Your task to perform on an android device: Clear the cart on bestbuy. Search for "jbl charge 4" on bestbuy, select the first entry, add it to the cart, then select checkout. Image 0: 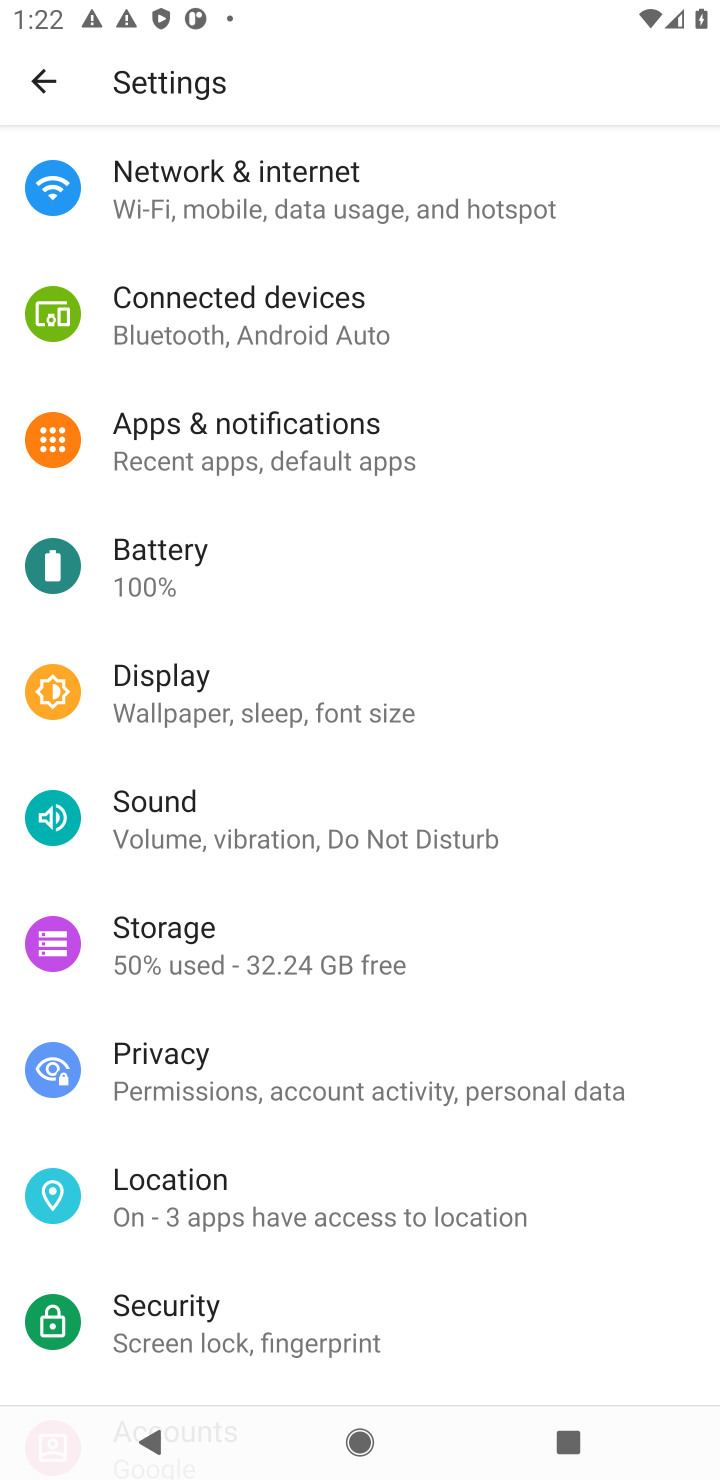
Step 0: press home button
Your task to perform on an android device: Clear the cart on bestbuy. Search for "jbl charge 4" on bestbuy, select the first entry, add it to the cart, then select checkout. Image 1: 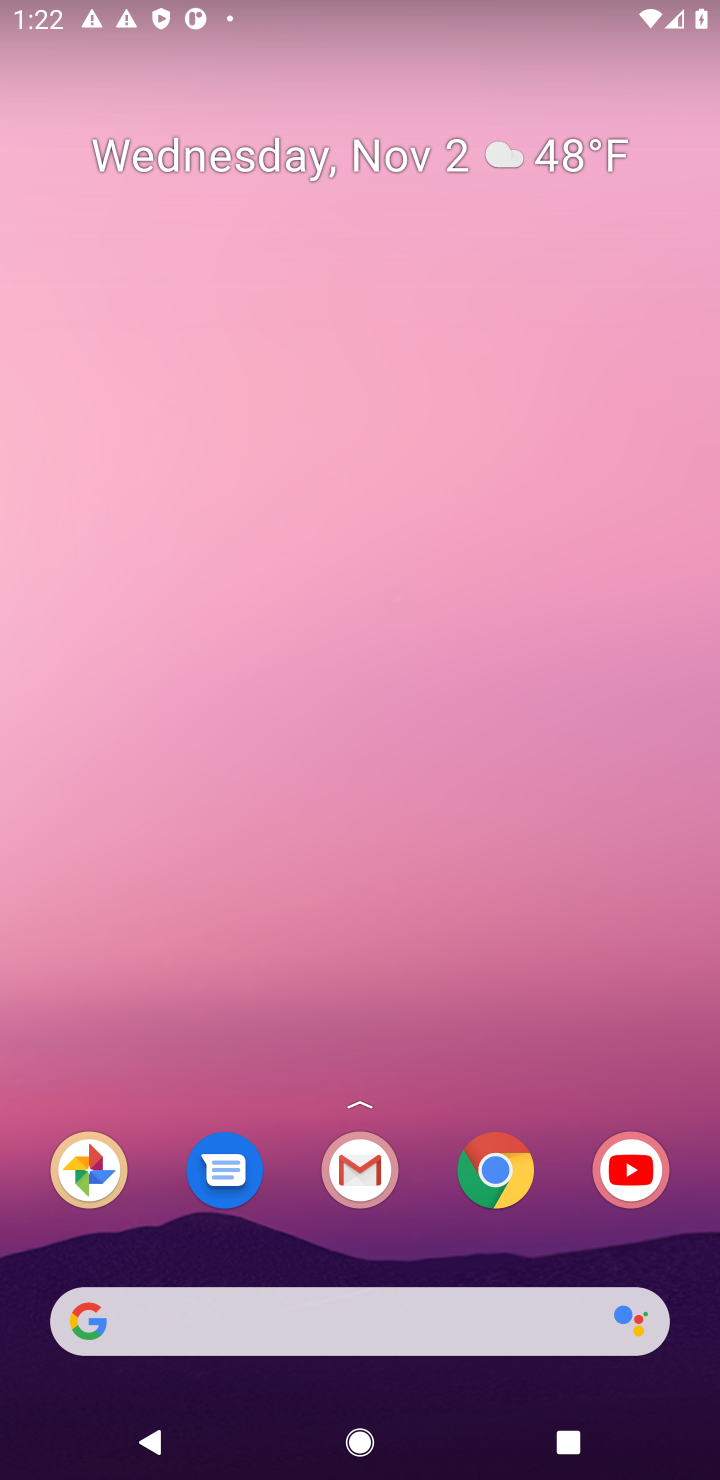
Step 1: click (496, 1168)
Your task to perform on an android device: Clear the cart on bestbuy. Search for "jbl charge 4" on bestbuy, select the first entry, add it to the cart, then select checkout. Image 2: 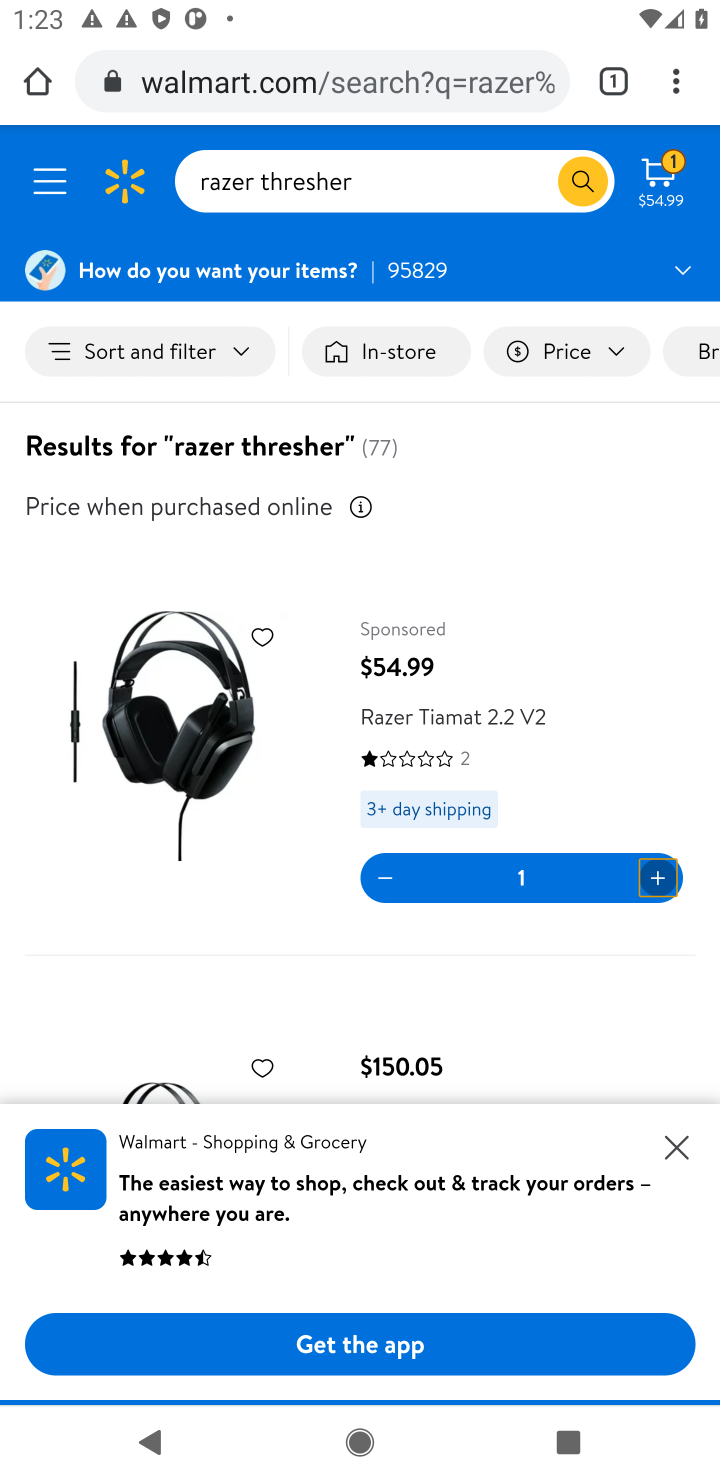
Step 2: click (375, 91)
Your task to perform on an android device: Clear the cart on bestbuy. Search for "jbl charge 4" on bestbuy, select the first entry, add it to the cart, then select checkout. Image 3: 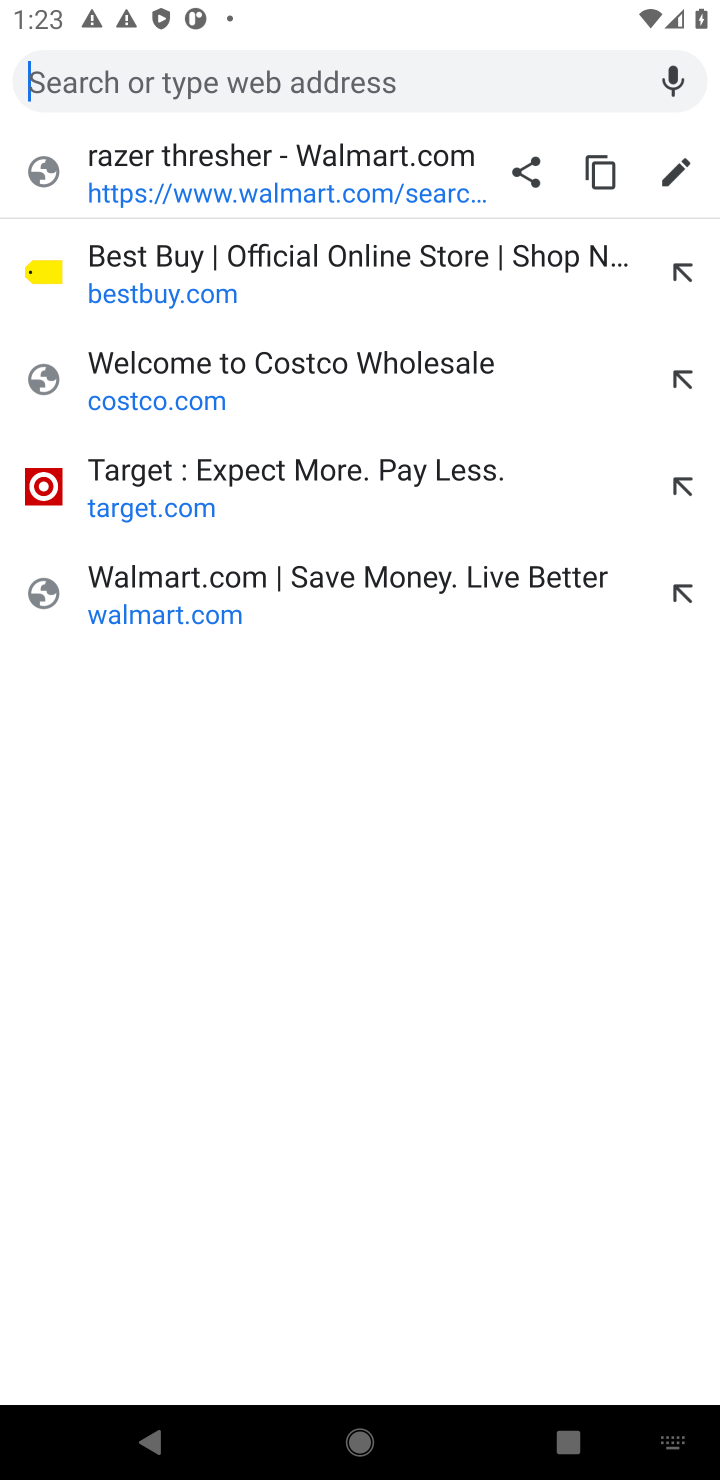
Step 3: type "bestbuy"
Your task to perform on an android device: Clear the cart on bestbuy. Search for "jbl charge 4" on bestbuy, select the first entry, add it to the cart, then select checkout. Image 4: 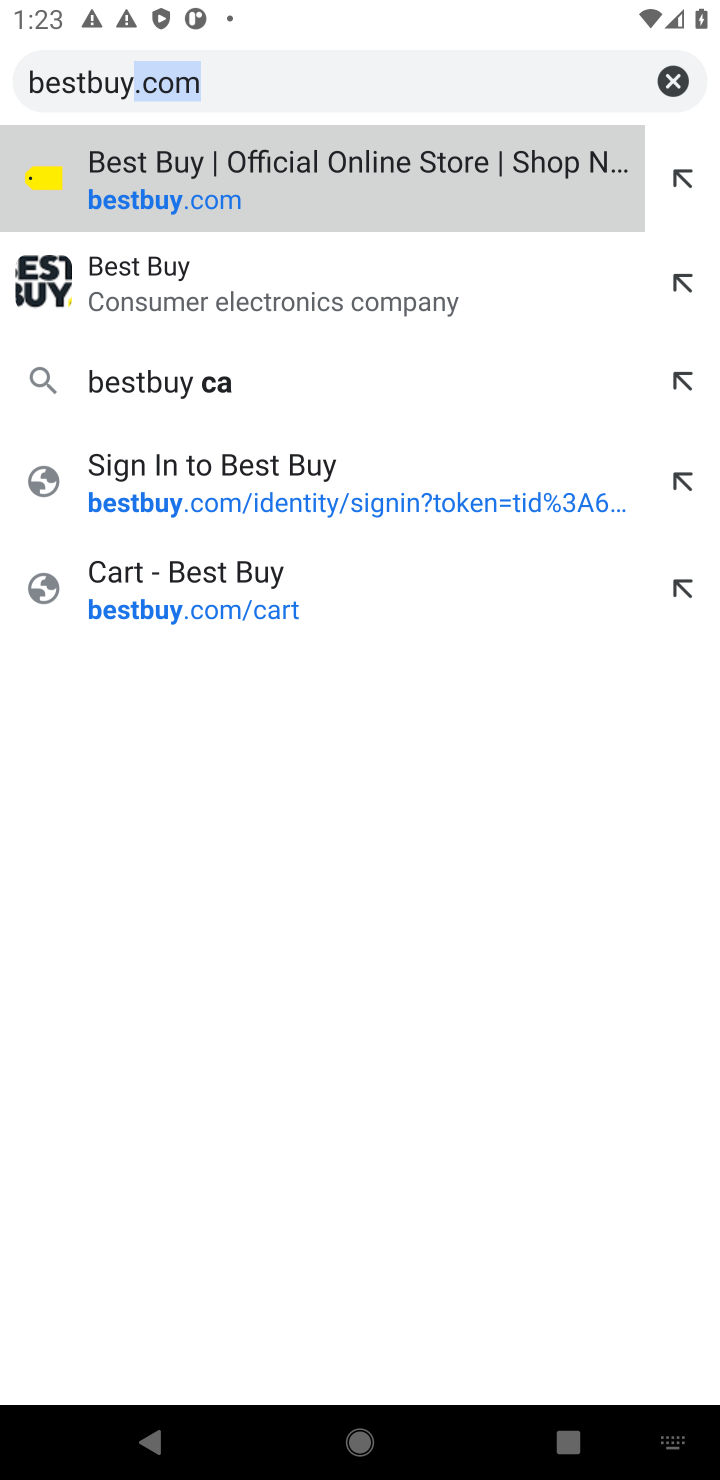
Step 4: click (252, 157)
Your task to perform on an android device: Clear the cart on bestbuy. Search for "jbl charge 4" on bestbuy, select the first entry, add it to the cart, then select checkout. Image 5: 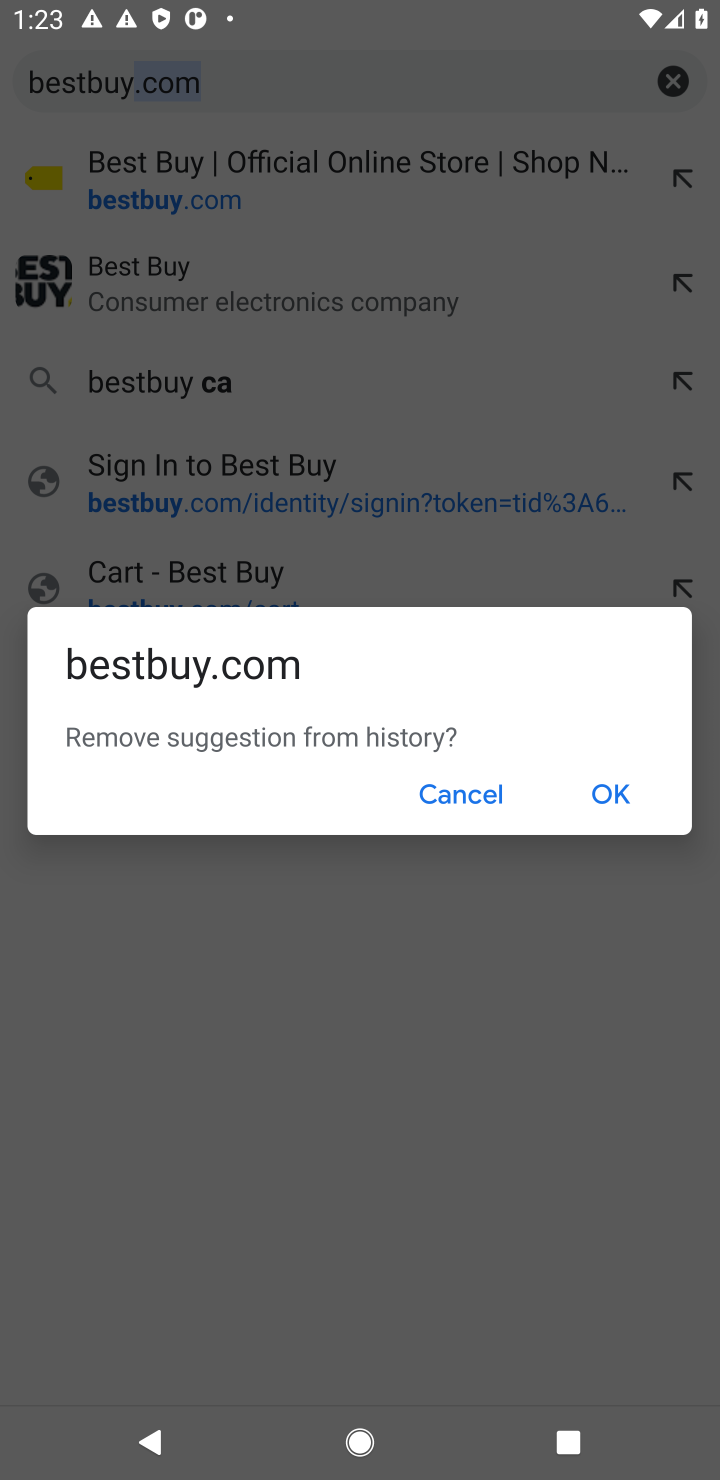
Step 5: click (453, 783)
Your task to perform on an android device: Clear the cart on bestbuy. Search for "jbl charge 4" on bestbuy, select the first entry, add it to the cart, then select checkout. Image 6: 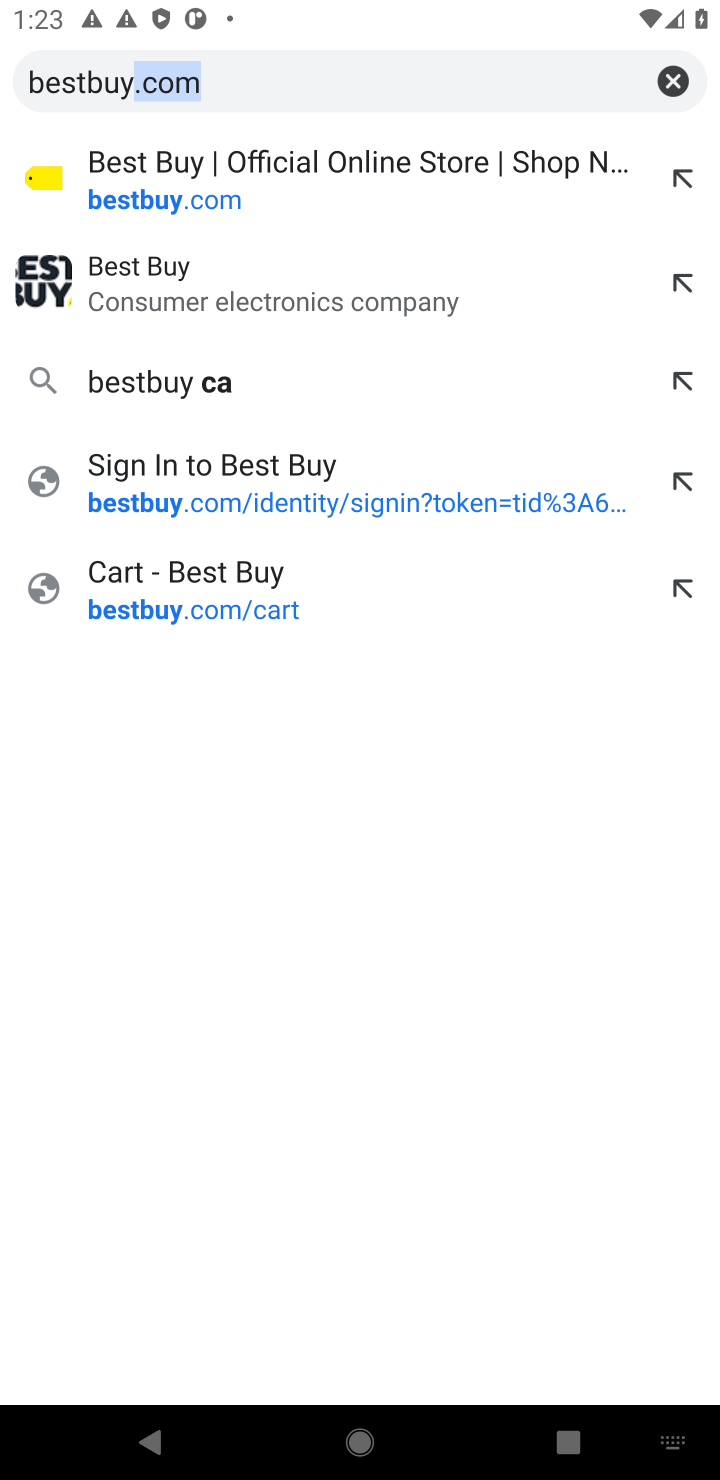
Step 6: click (97, 163)
Your task to perform on an android device: Clear the cart on bestbuy. Search for "jbl charge 4" on bestbuy, select the first entry, add it to the cart, then select checkout. Image 7: 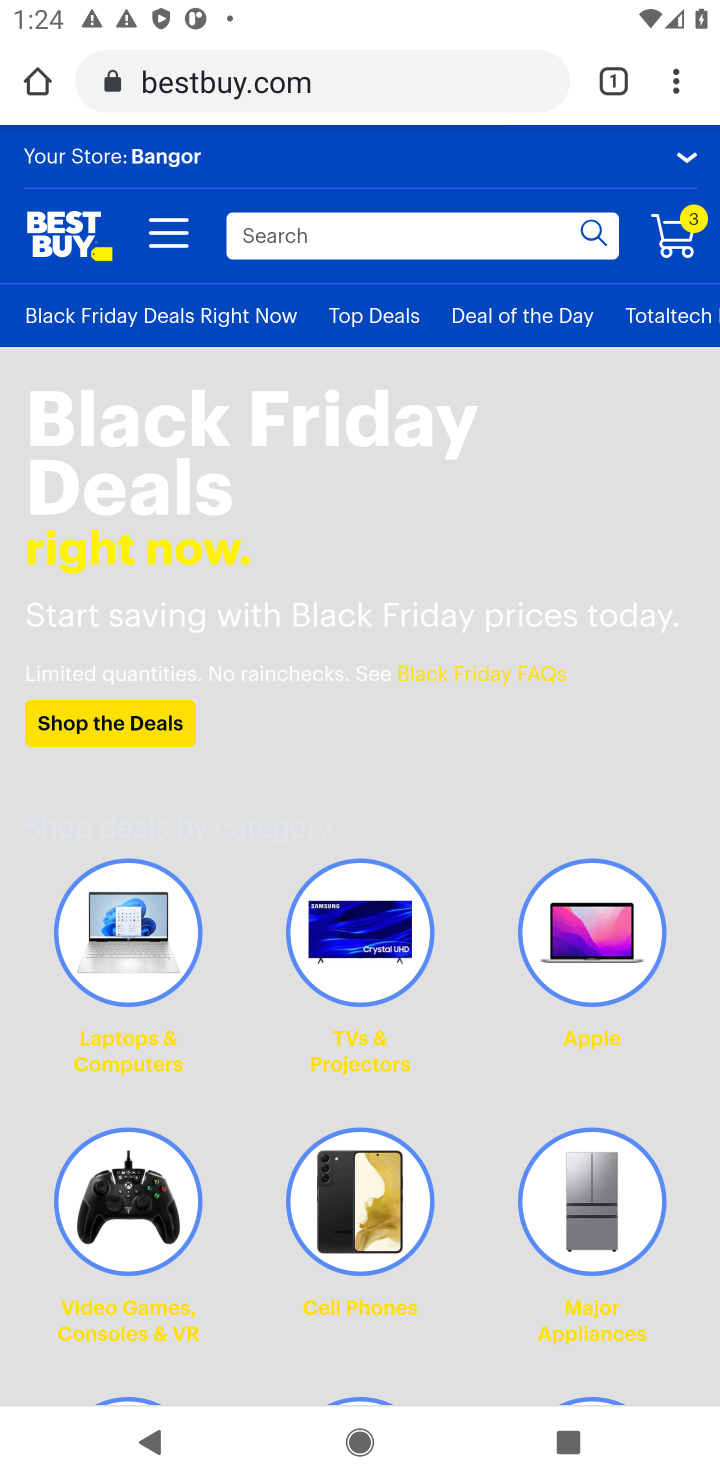
Step 7: click (381, 231)
Your task to perform on an android device: Clear the cart on bestbuy. Search for "jbl charge 4" on bestbuy, select the first entry, add it to the cart, then select checkout. Image 8: 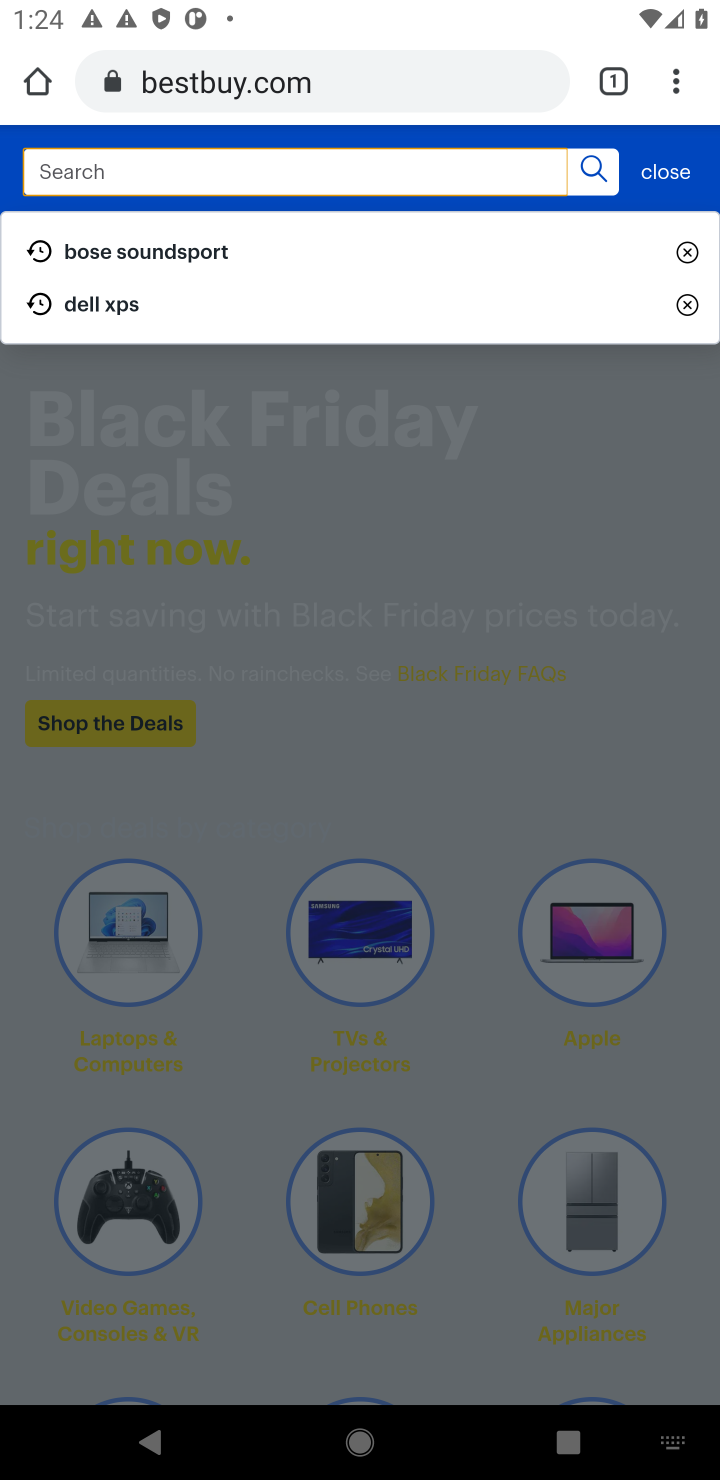
Step 8: type "jbl charge 4"
Your task to perform on an android device: Clear the cart on bestbuy. Search for "jbl charge 4" on bestbuy, select the first entry, add it to the cart, then select checkout. Image 9: 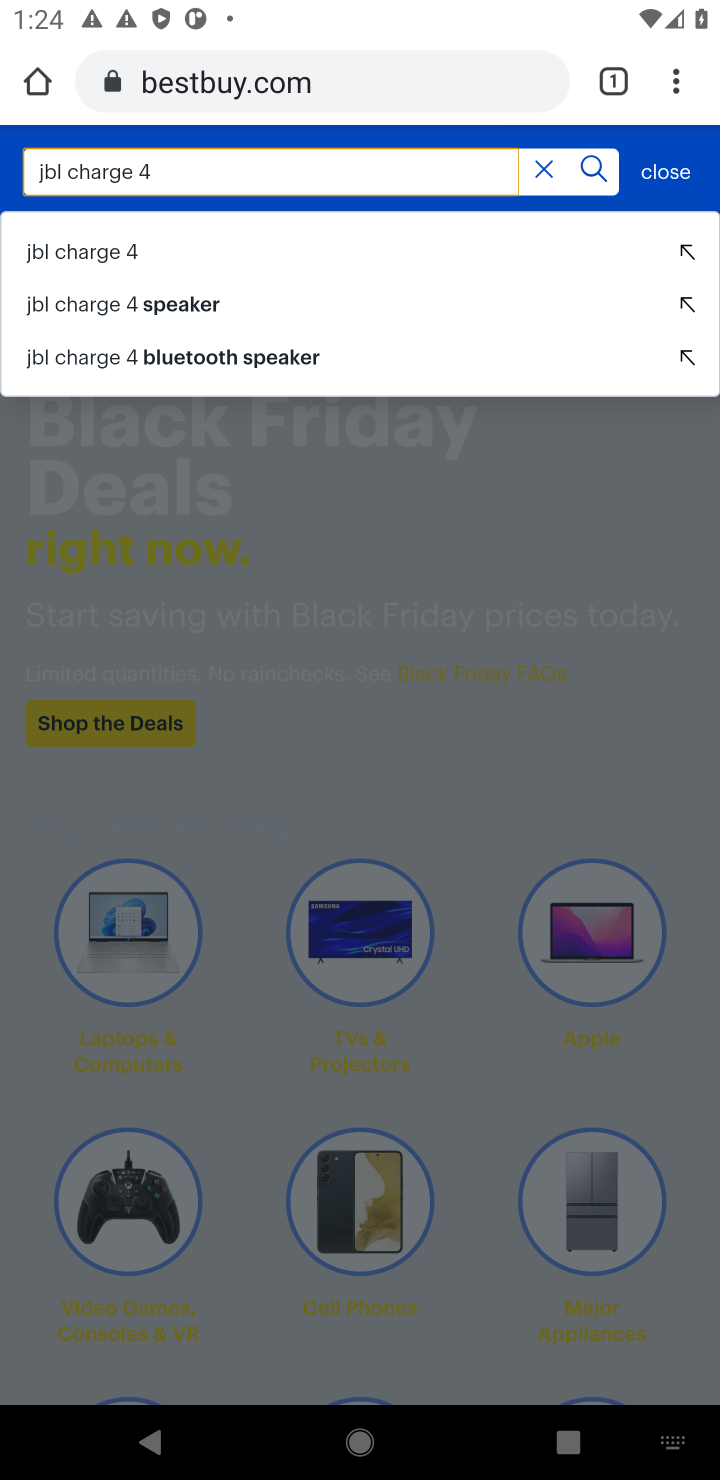
Step 9: click (73, 256)
Your task to perform on an android device: Clear the cart on bestbuy. Search for "jbl charge 4" on bestbuy, select the first entry, add it to the cart, then select checkout. Image 10: 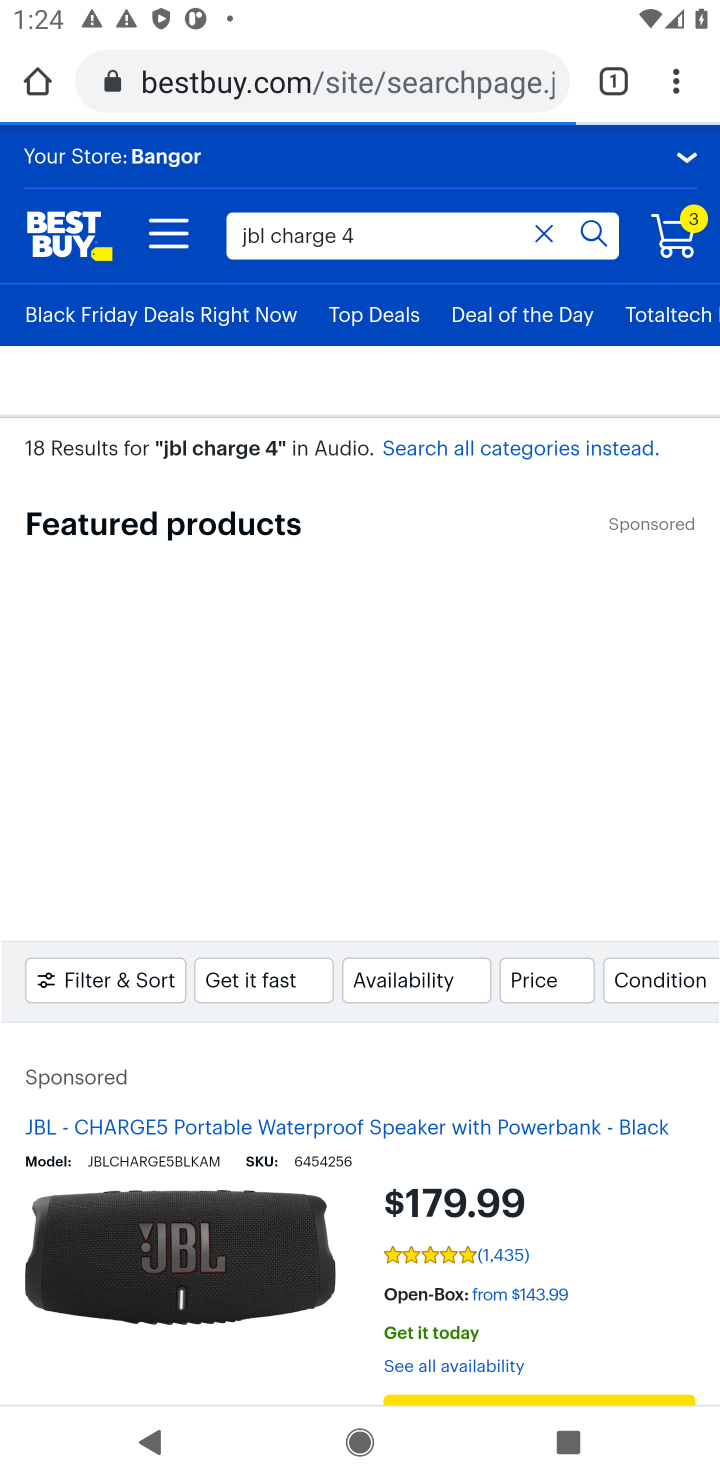
Step 10: click (265, 1250)
Your task to perform on an android device: Clear the cart on bestbuy. Search for "jbl charge 4" on bestbuy, select the first entry, add it to the cart, then select checkout. Image 11: 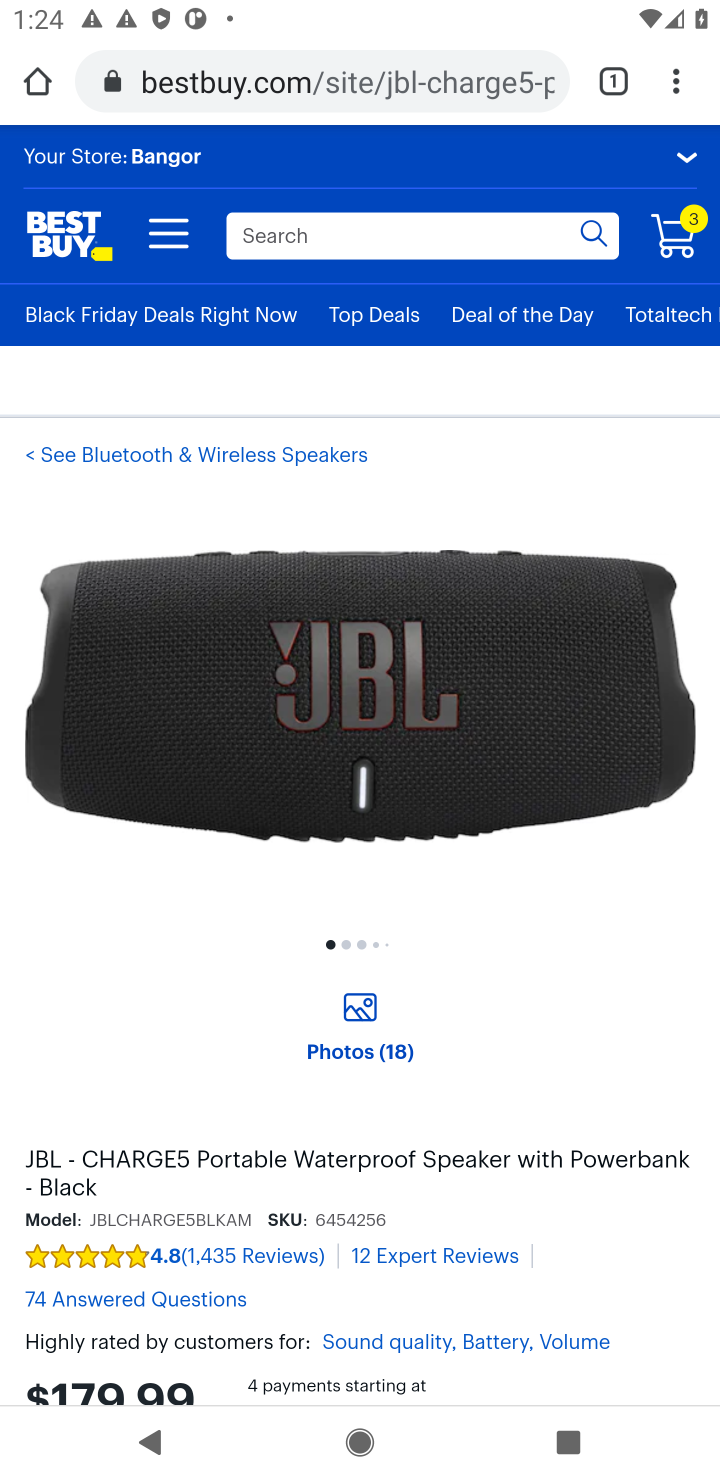
Step 11: drag from (300, 1295) to (354, 691)
Your task to perform on an android device: Clear the cart on bestbuy. Search for "jbl charge 4" on bestbuy, select the first entry, add it to the cart, then select checkout. Image 12: 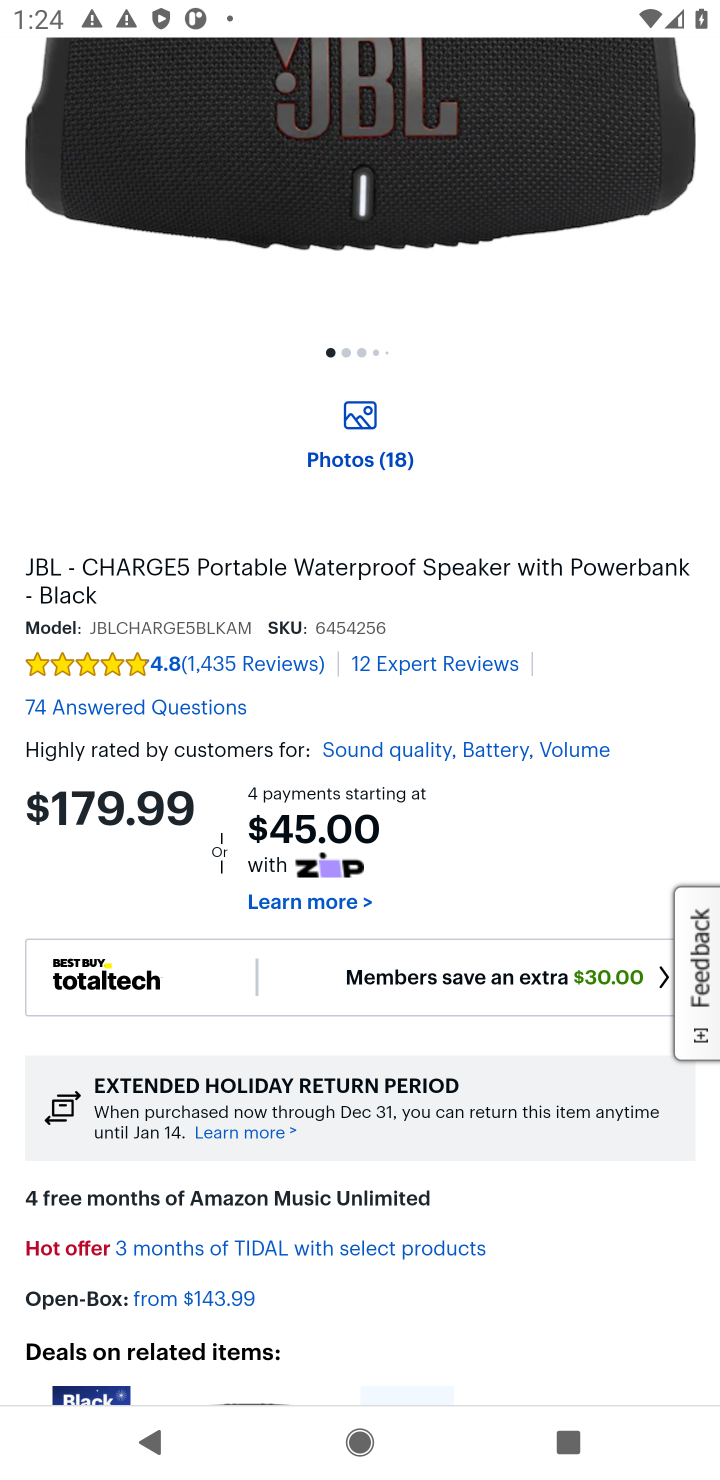
Step 12: drag from (404, 1091) to (401, 584)
Your task to perform on an android device: Clear the cart on bestbuy. Search for "jbl charge 4" on bestbuy, select the first entry, add it to the cart, then select checkout. Image 13: 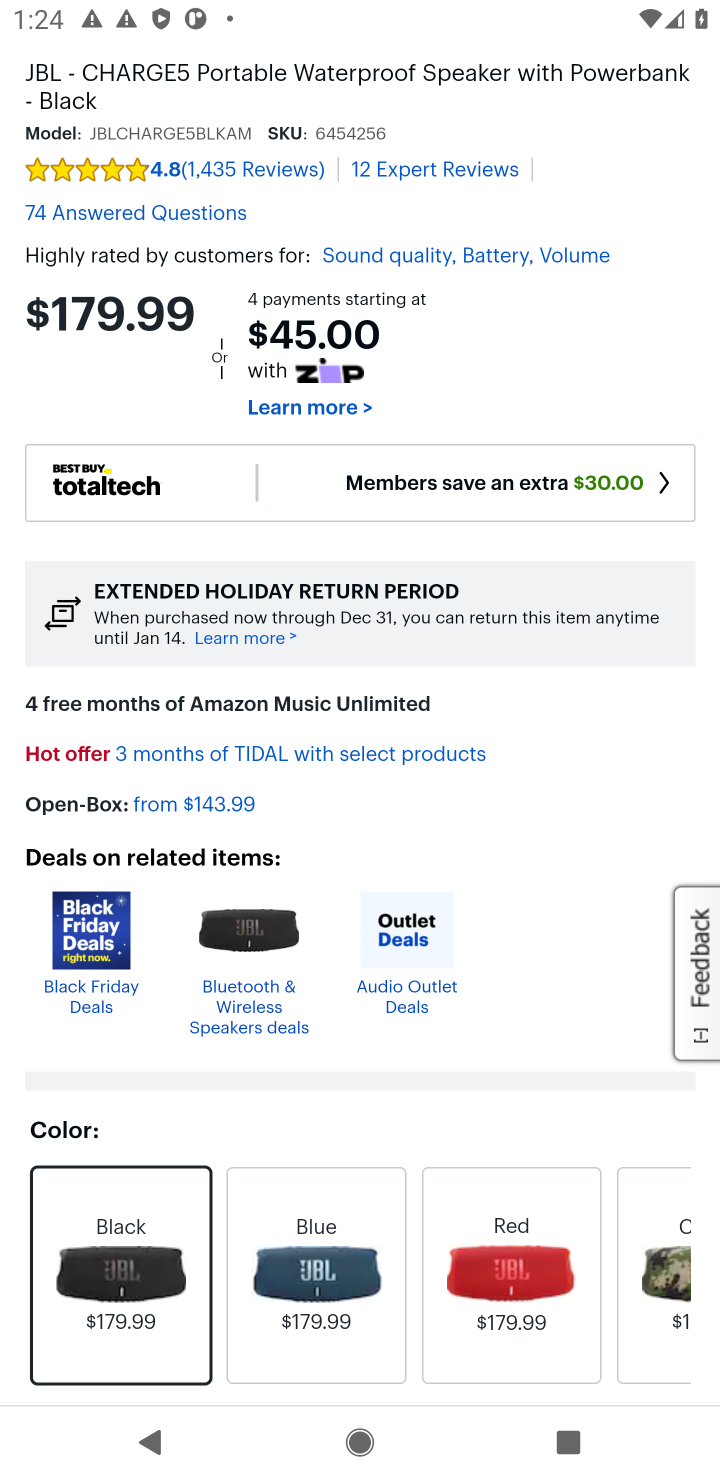
Step 13: drag from (410, 933) to (410, 479)
Your task to perform on an android device: Clear the cart on bestbuy. Search for "jbl charge 4" on bestbuy, select the first entry, add it to the cart, then select checkout. Image 14: 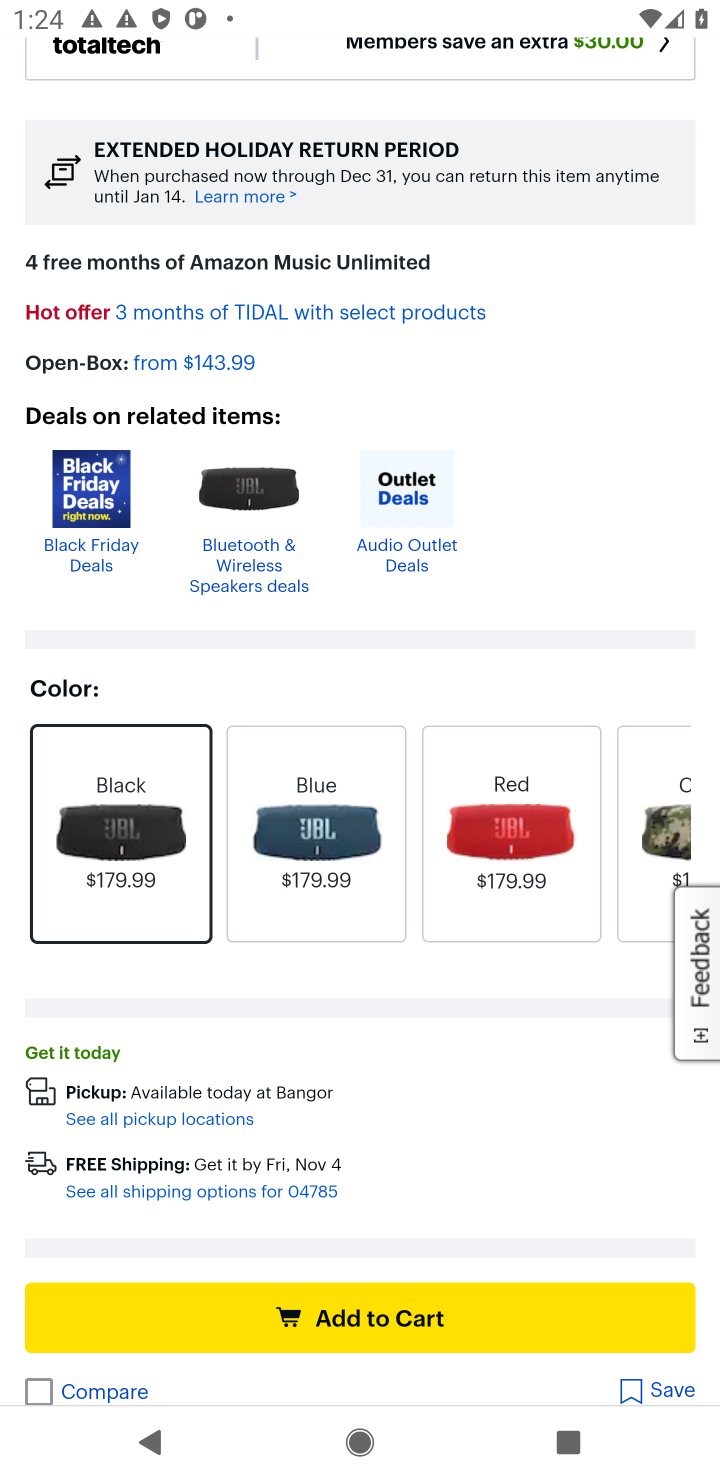
Step 14: drag from (413, 1015) to (452, 578)
Your task to perform on an android device: Clear the cart on bestbuy. Search for "jbl charge 4" on bestbuy, select the first entry, add it to the cart, then select checkout. Image 15: 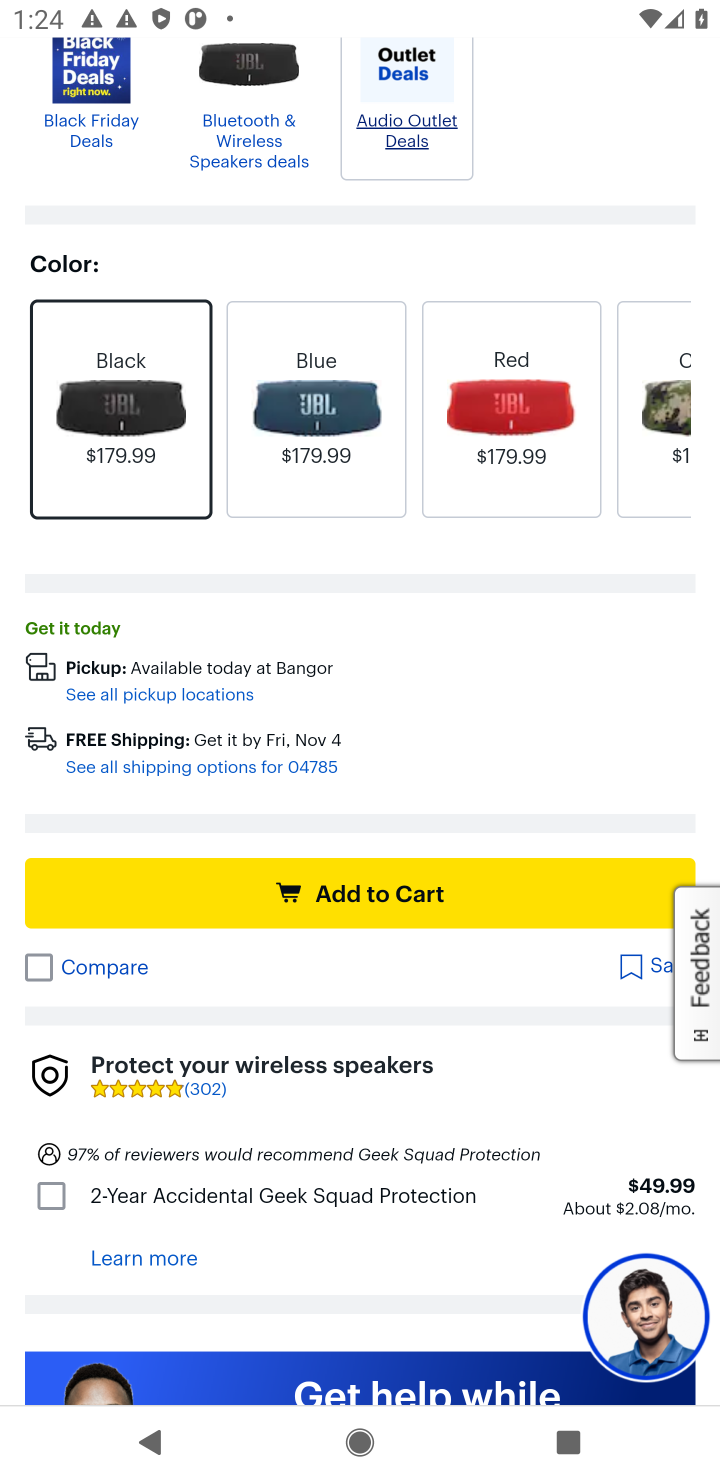
Step 15: click (438, 900)
Your task to perform on an android device: Clear the cart on bestbuy. Search for "jbl charge 4" on bestbuy, select the first entry, add it to the cart, then select checkout. Image 16: 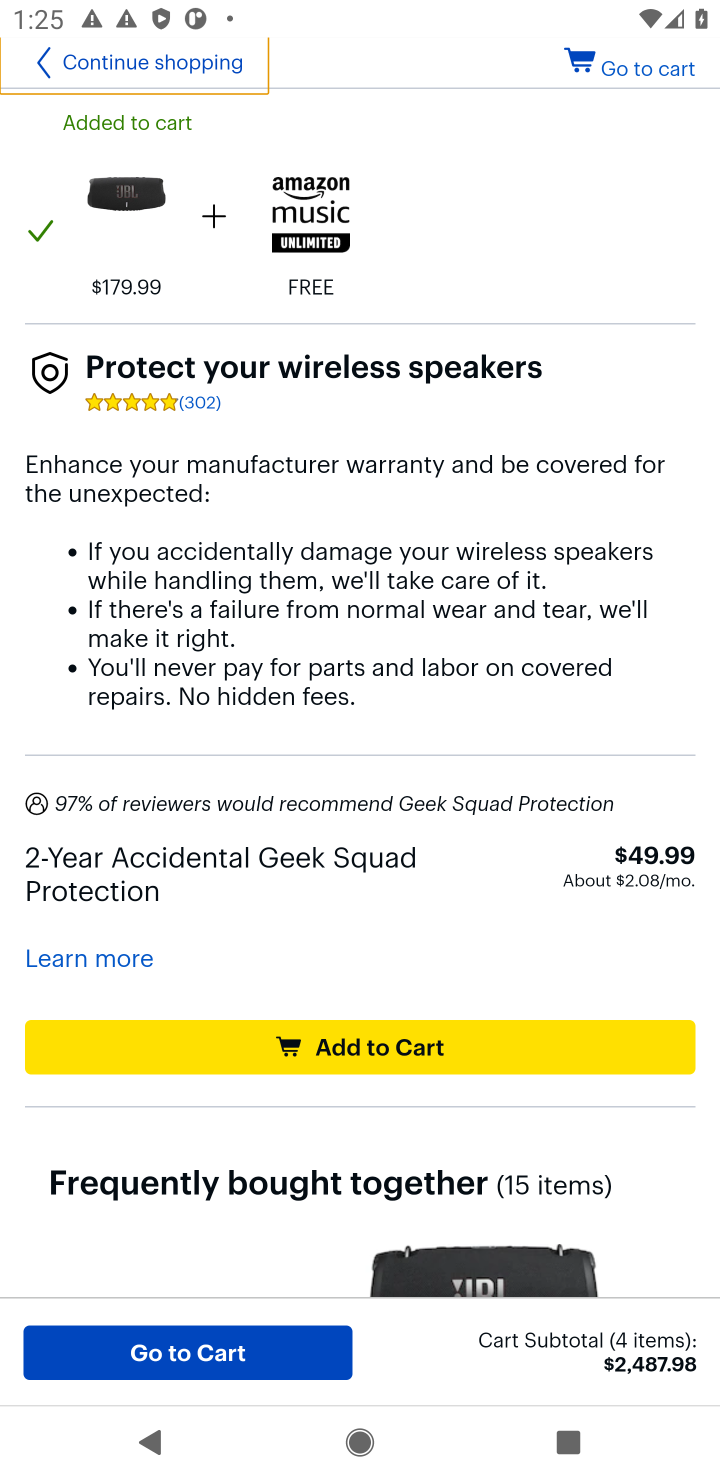
Step 16: click (198, 1347)
Your task to perform on an android device: Clear the cart on bestbuy. Search for "jbl charge 4" on bestbuy, select the first entry, add it to the cart, then select checkout. Image 17: 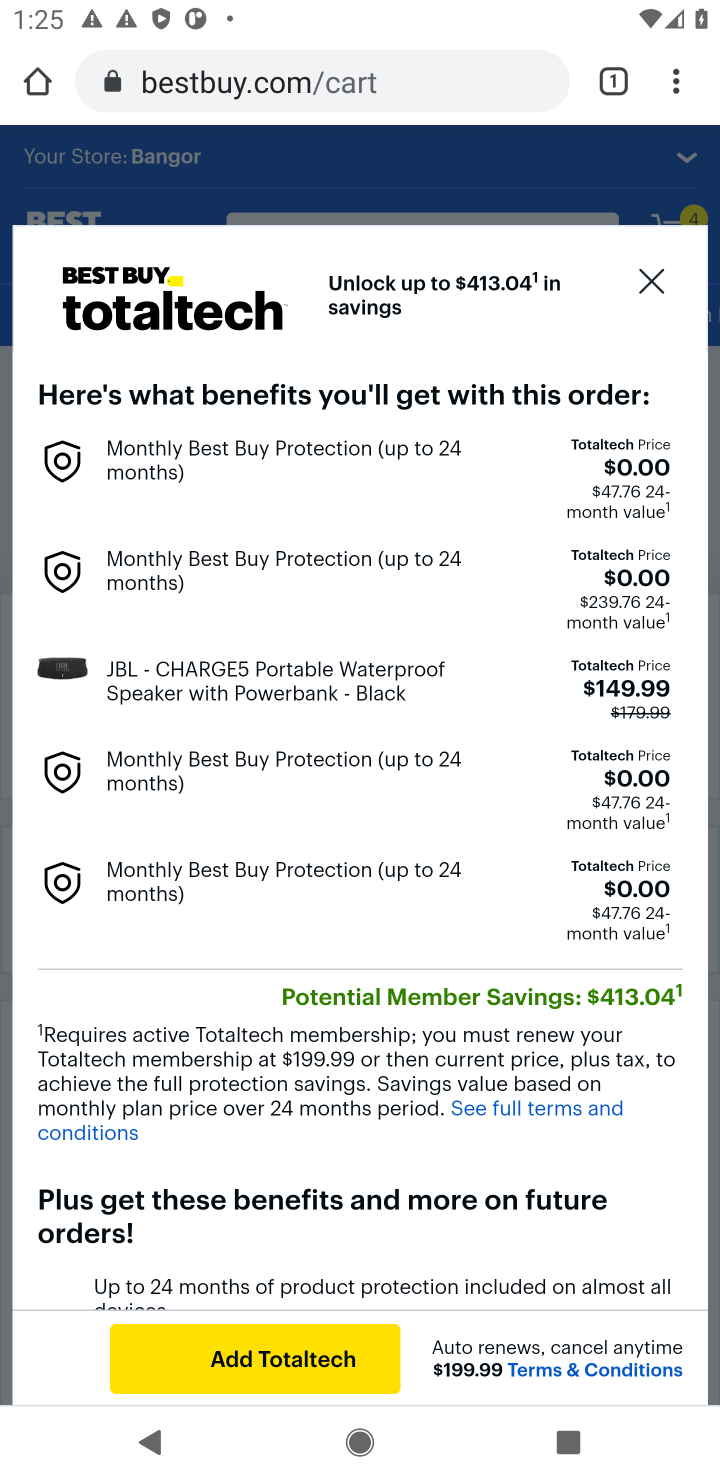
Step 17: click (550, 712)
Your task to perform on an android device: Clear the cart on bestbuy. Search for "jbl charge 4" on bestbuy, select the first entry, add it to the cart, then select checkout. Image 18: 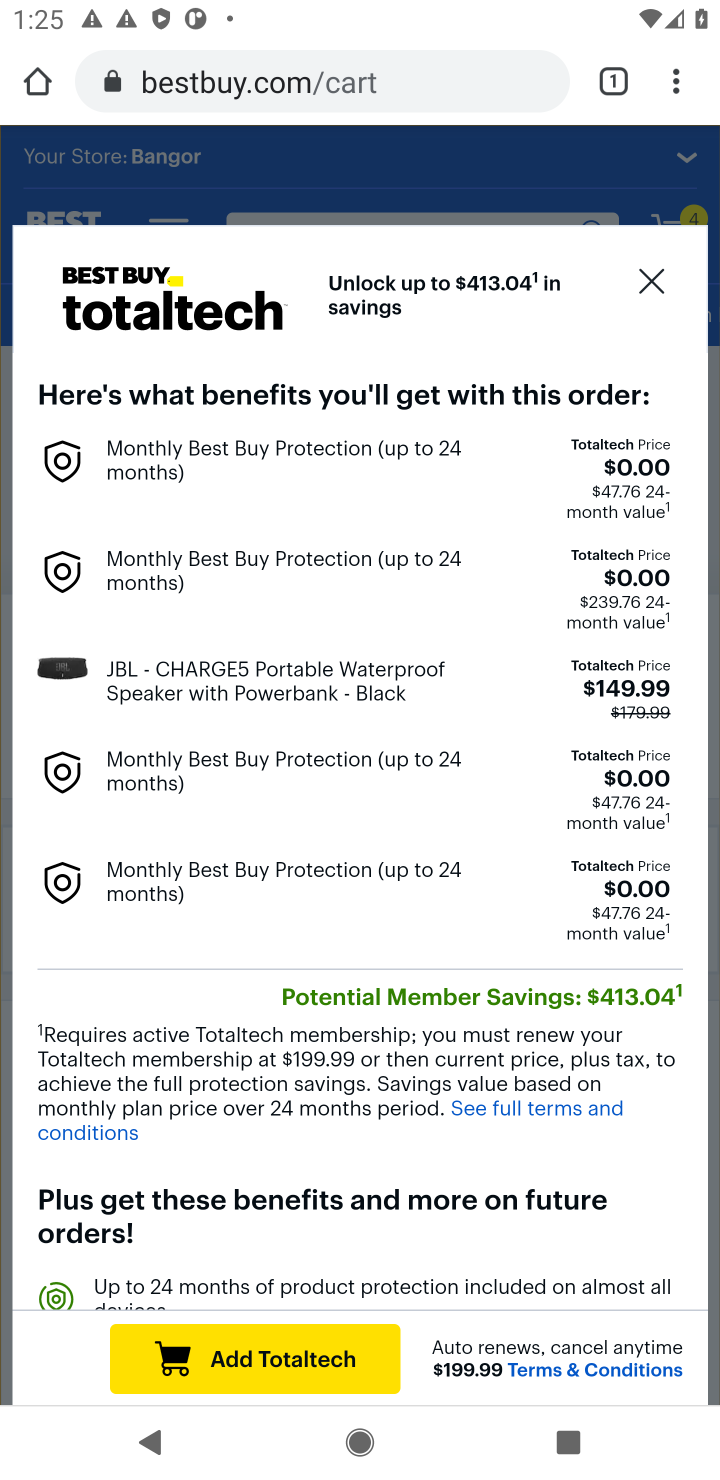
Step 18: click (643, 287)
Your task to perform on an android device: Clear the cart on bestbuy. Search for "jbl charge 4" on bestbuy, select the first entry, add it to the cart, then select checkout. Image 19: 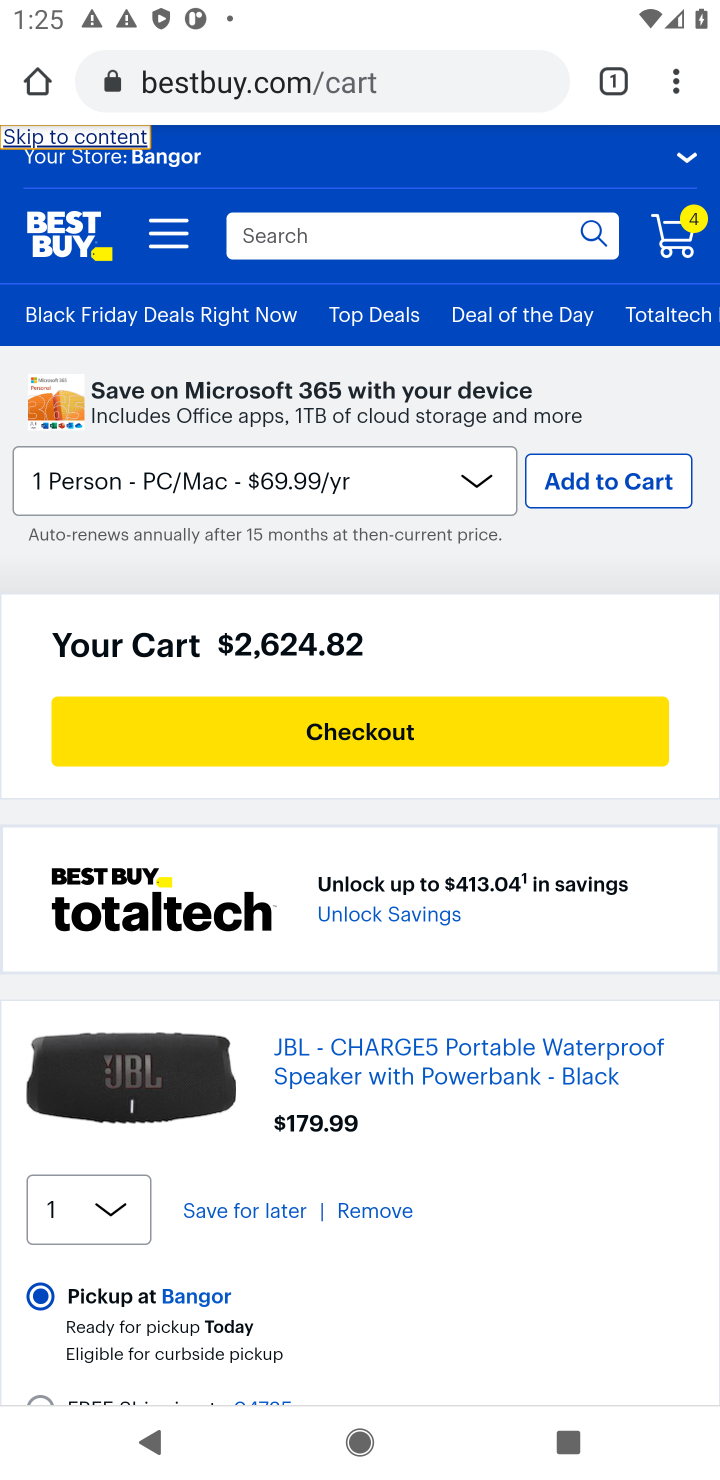
Step 19: click (287, 755)
Your task to perform on an android device: Clear the cart on bestbuy. Search for "jbl charge 4" on bestbuy, select the first entry, add it to the cart, then select checkout. Image 20: 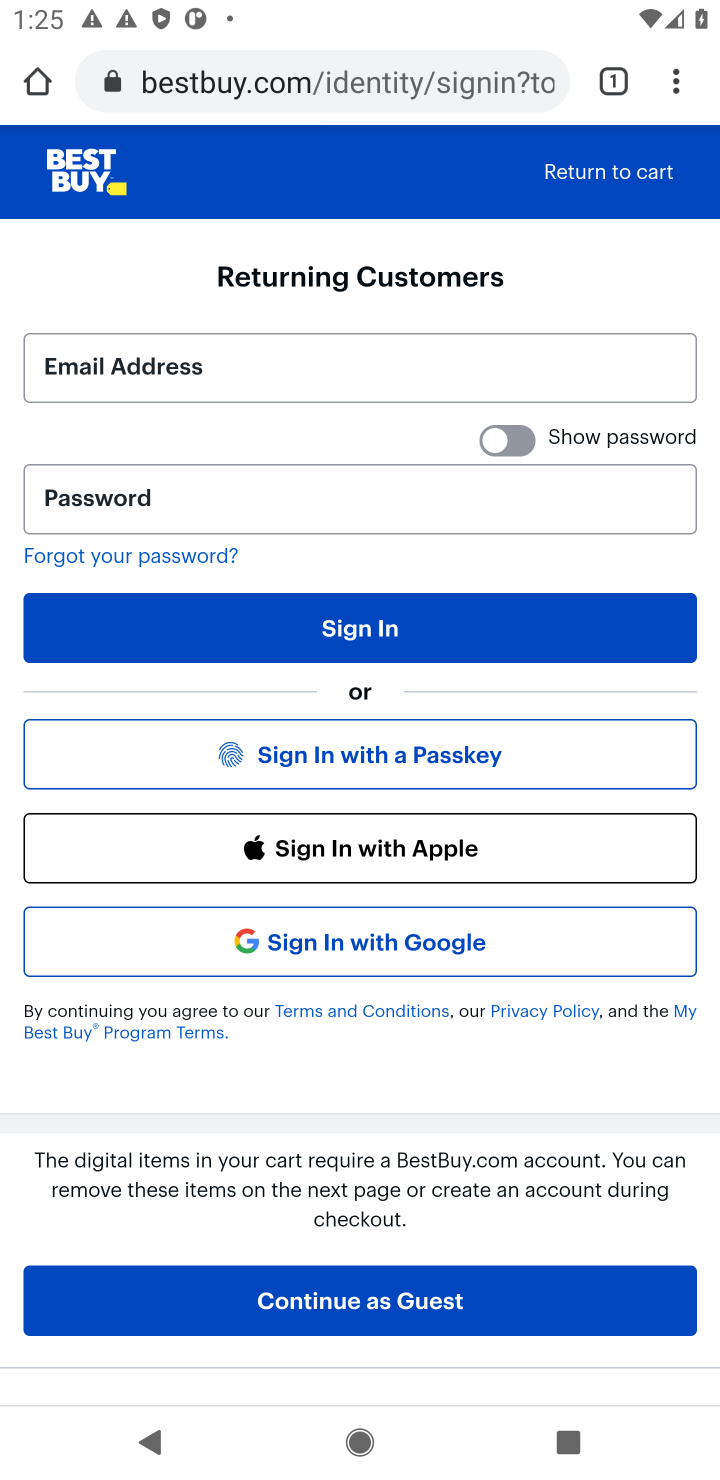
Step 20: task complete